Your task to perform on an android device: open sync settings in chrome Image 0: 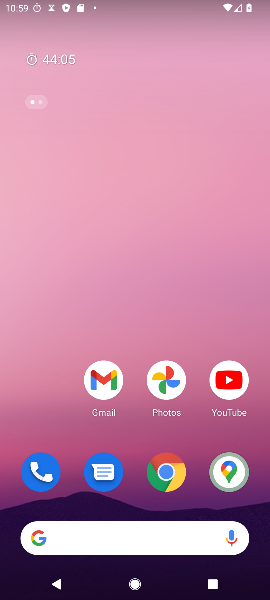
Step 0: drag from (197, 330) to (210, 13)
Your task to perform on an android device: open sync settings in chrome Image 1: 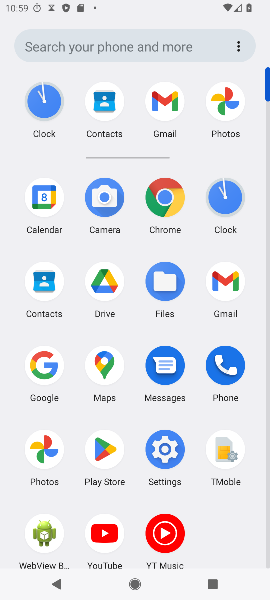
Step 1: click (166, 217)
Your task to perform on an android device: open sync settings in chrome Image 2: 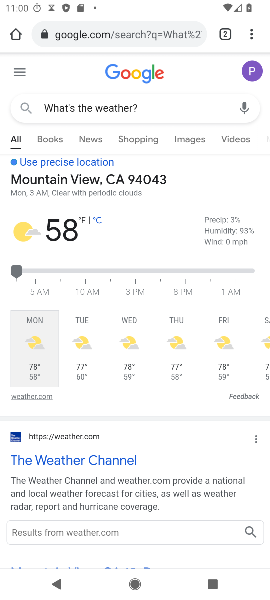
Step 2: click (248, 33)
Your task to perform on an android device: open sync settings in chrome Image 3: 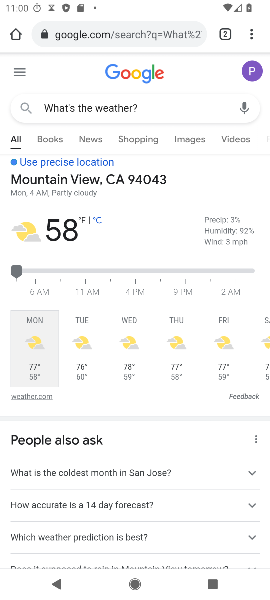
Step 3: click (248, 33)
Your task to perform on an android device: open sync settings in chrome Image 4: 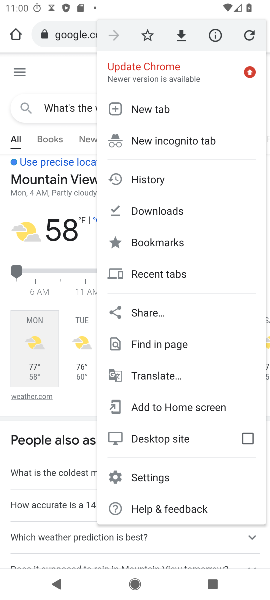
Step 4: click (185, 482)
Your task to perform on an android device: open sync settings in chrome Image 5: 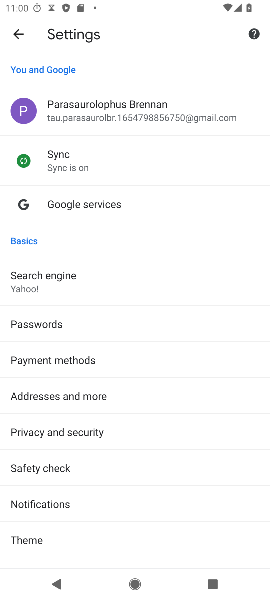
Step 5: click (128, 156)
Your task to perform on an android device: open sync settings in chrome Image 6: 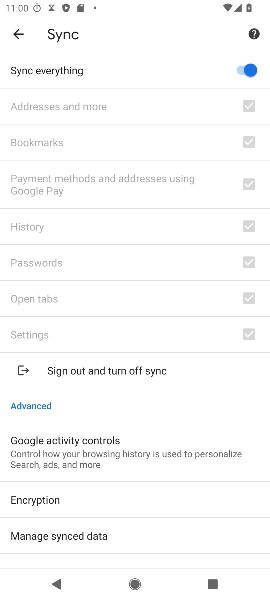
Step 6: task complete